Your task to perform on an android device: Search for seafood restaurants on Google Maps Image 0: 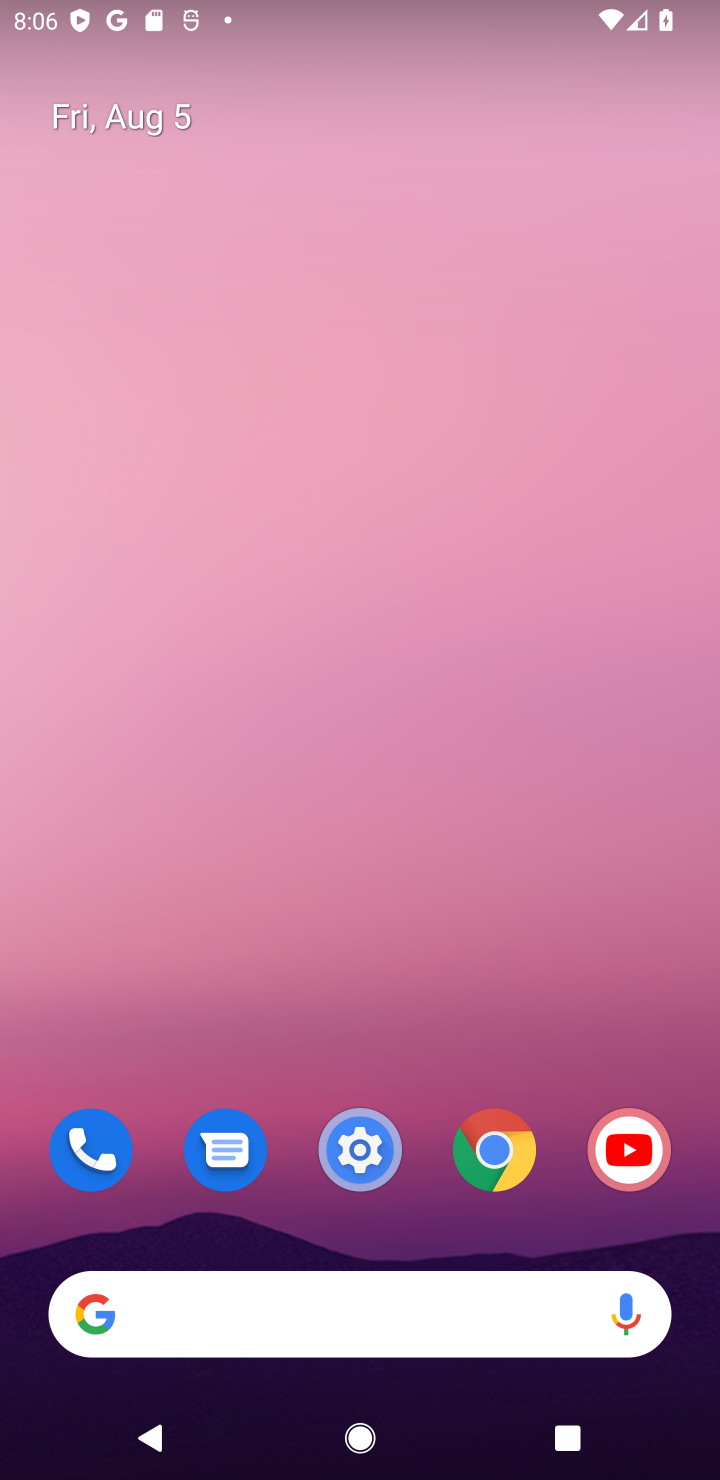
Step 0: drag from (440, 1045) to (446, 162)
Your task to perform on an android device: Search for seafood restaurants on Google Maps Image 1: 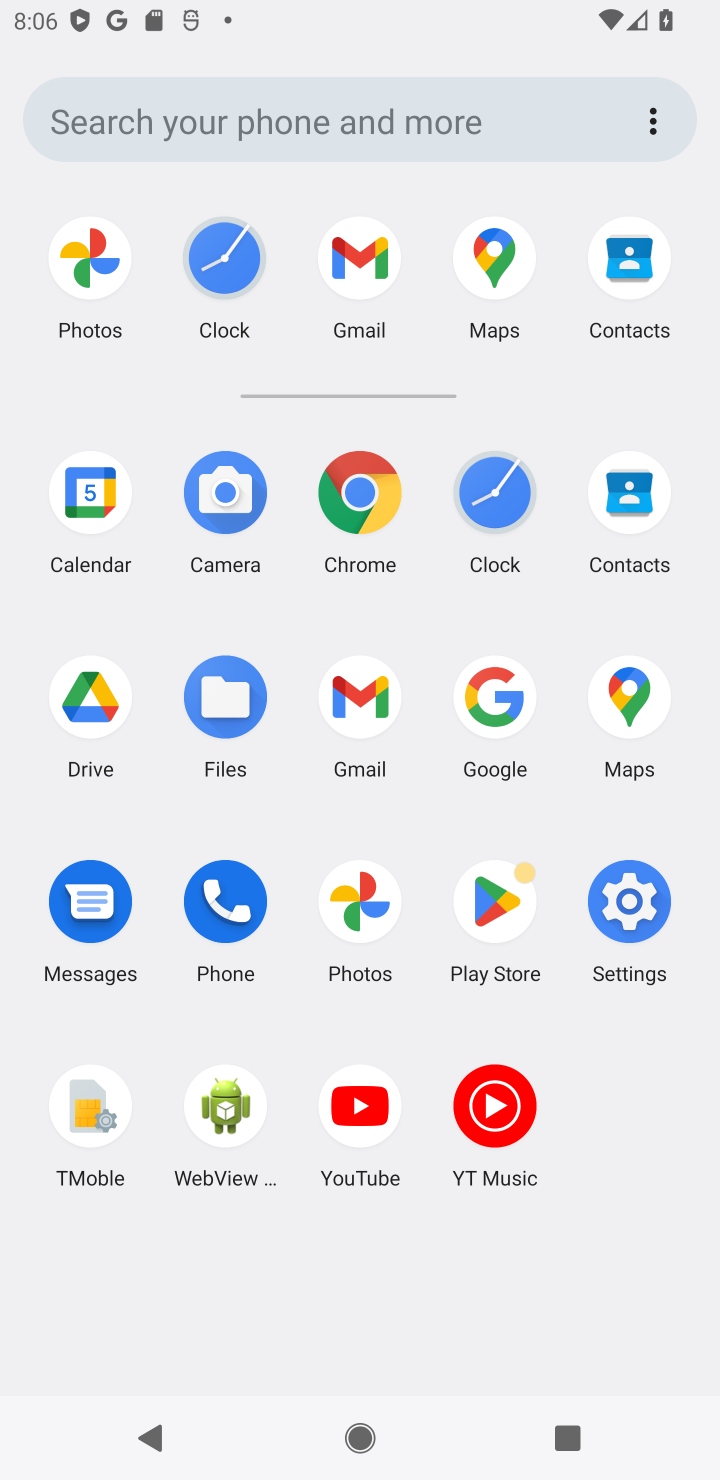
Step 1: click (652, 679)
Your task to perform on an android device: Search for seafood restaurants on Google Maps Image 2: 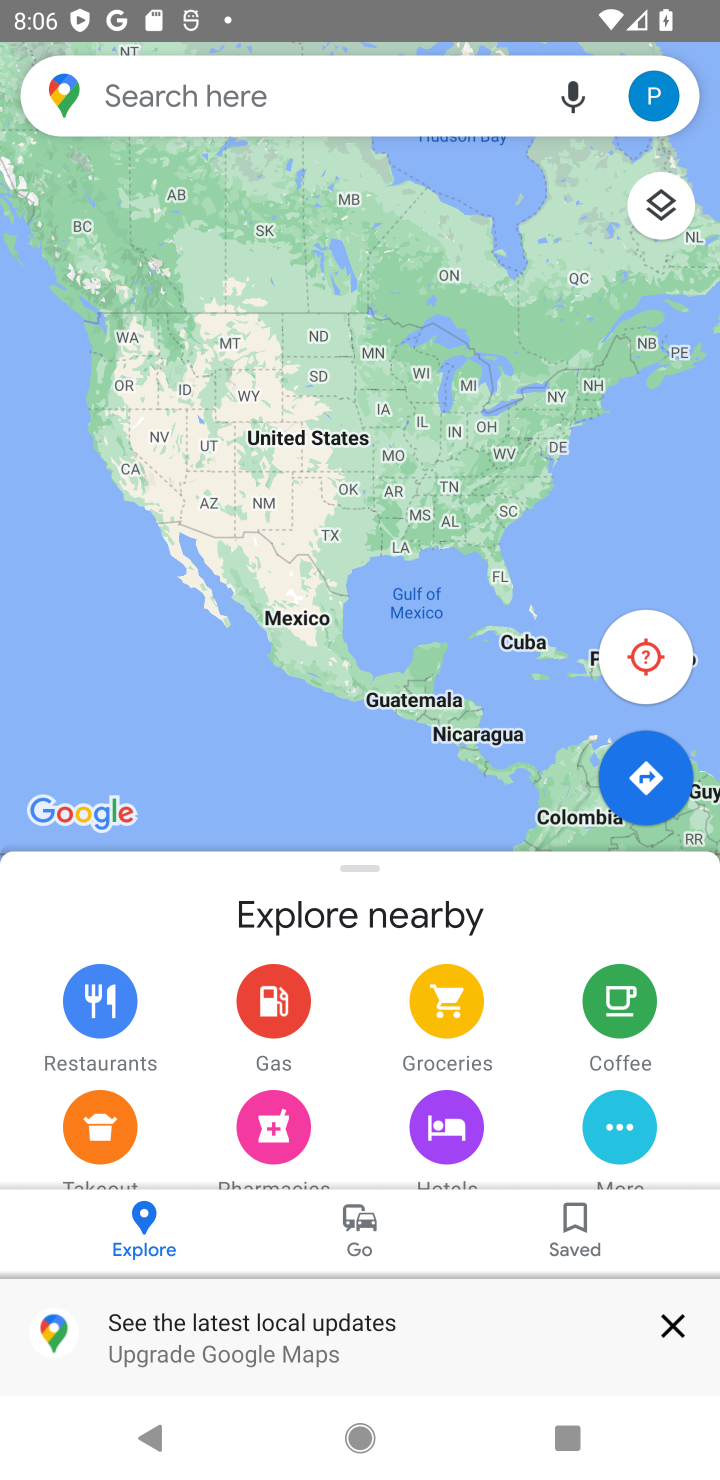
Step 2: click (289, 90)
Your task to perform on an android device: Search for seafood restaurants on Google Maps Image 3: 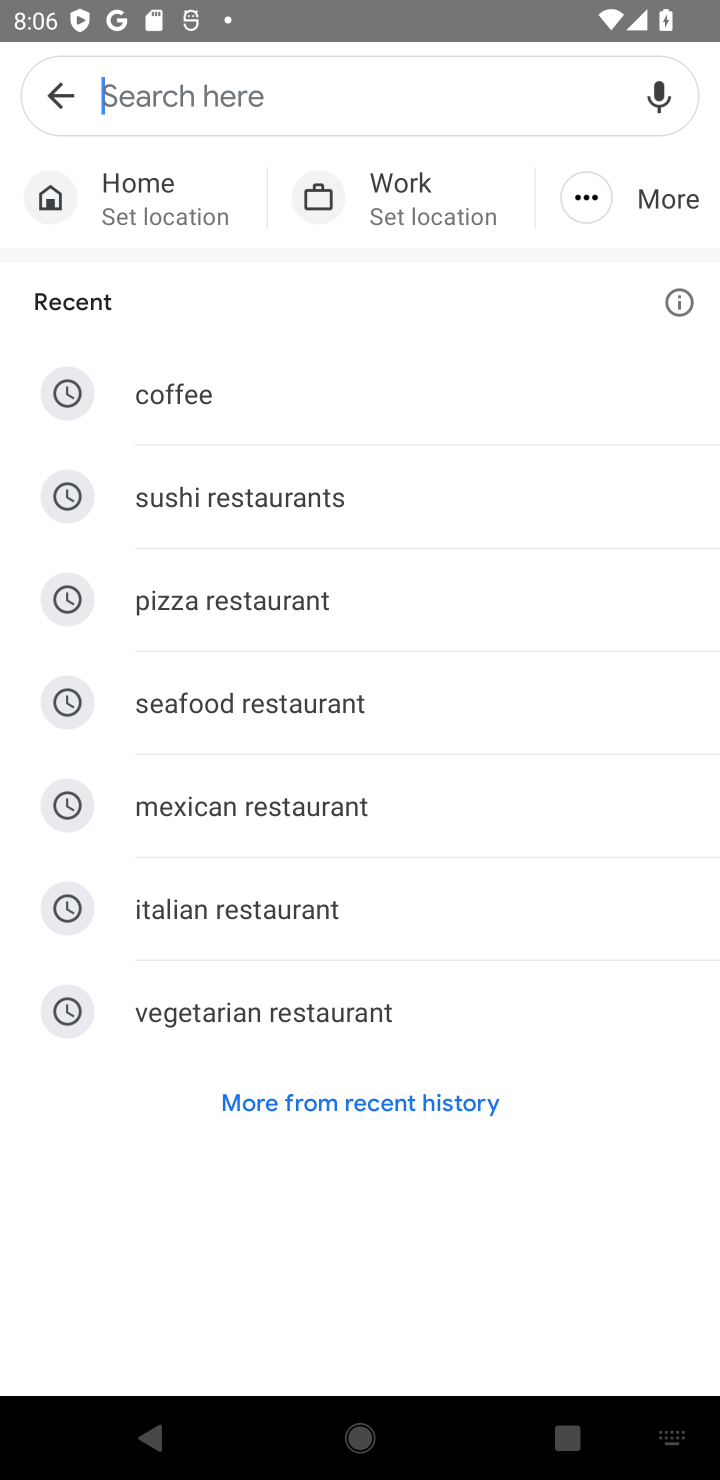
Step 3: type "seafood restaurants"
Your task to perform on an android device: Search for seafood restaurants on Google Maps Image 4: 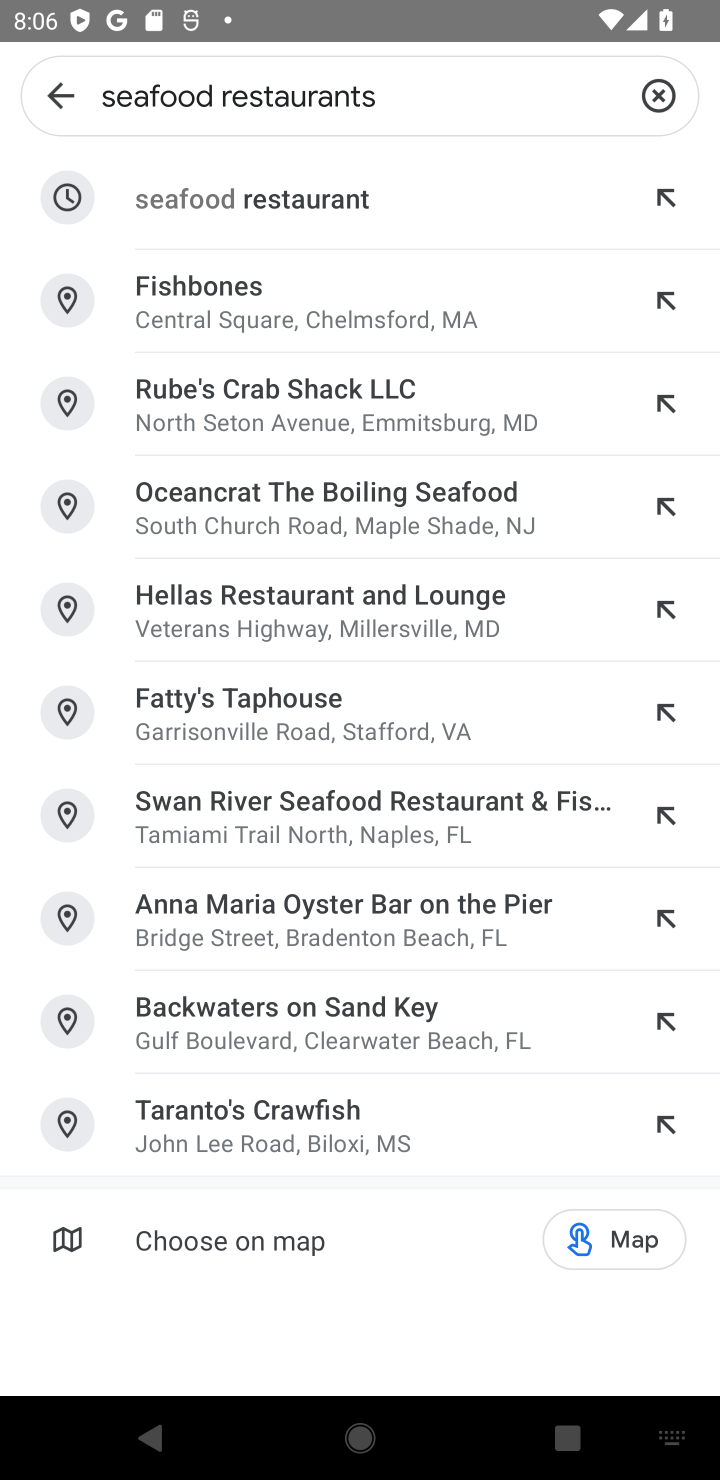
Step 4: click (411, 170)
Your task to perform on an android device: Search for seafood restaurants on Google Maps Image 5: 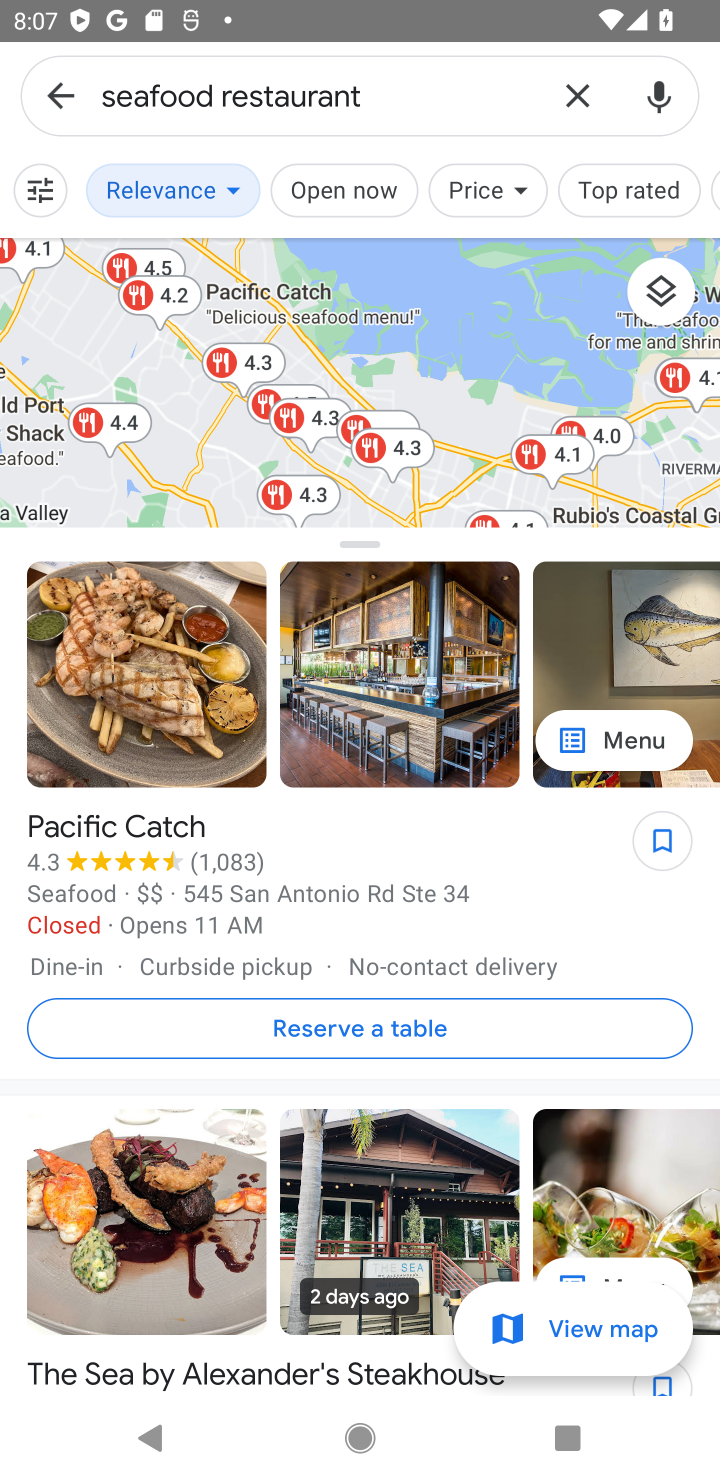
Step 5: task complete